Your task to perform on an android device: Go to Maps Image 0: 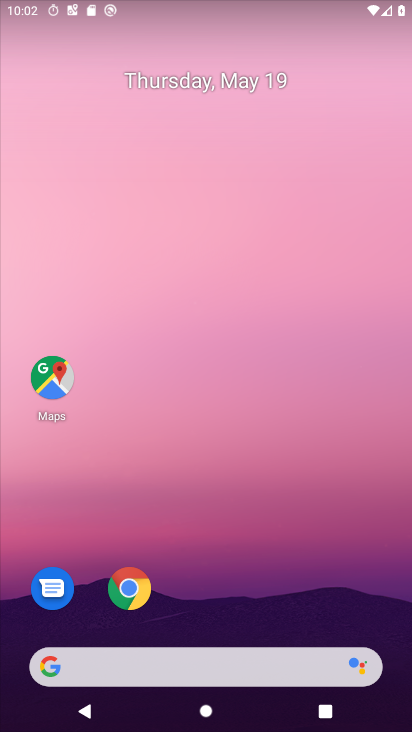
Step 0: press home button
Your task to perform on an android device: Go to Maps Image 1: 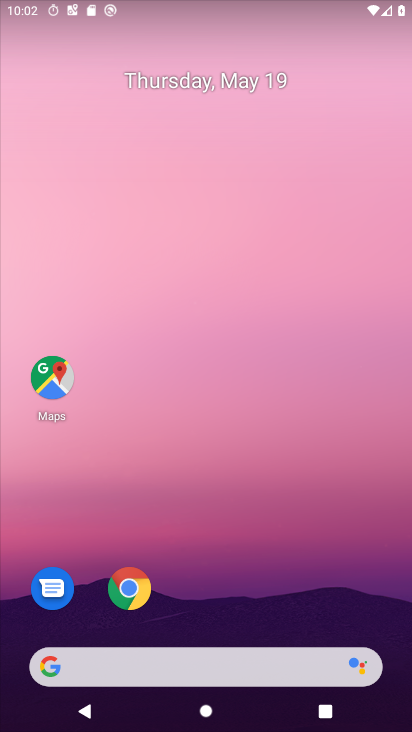
Step 1: click (55, 369)
Your task to perform on an android device: Go to Maps Image 2: 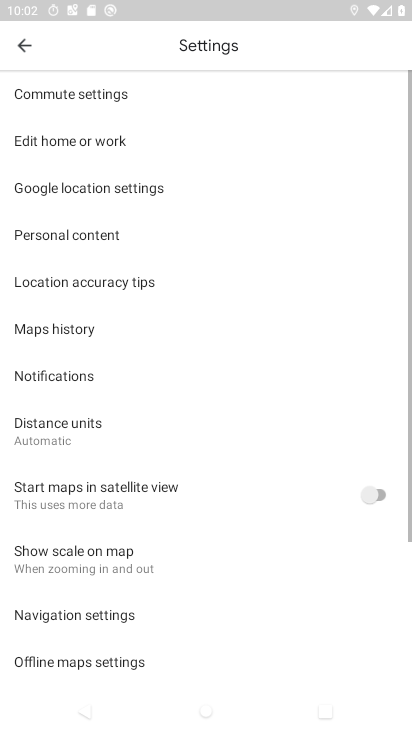
Step 2: click (27, 48)
Your task to perform on an android device: Go to Maps Image 3: 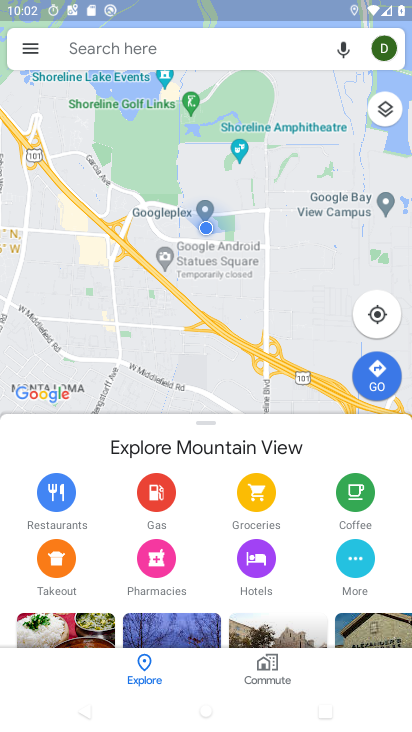
Step 3: task complete